Your task to perform on an android device: refresh tabs in the chrome app Image 0: 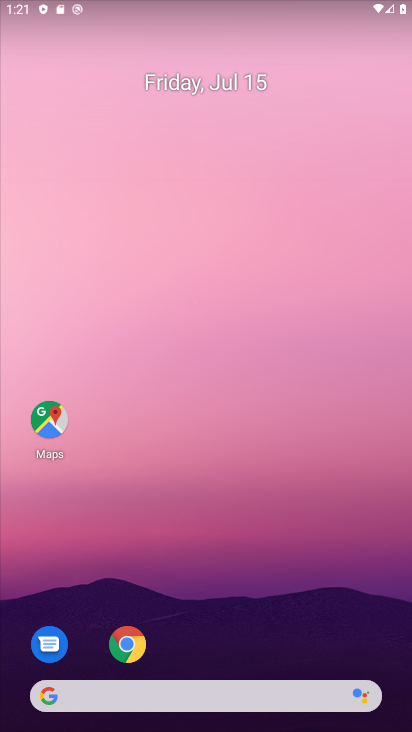
Step 0: click (297, 105)
Your task to perform on an android device: refresh tabs in the chrome app Image 1: 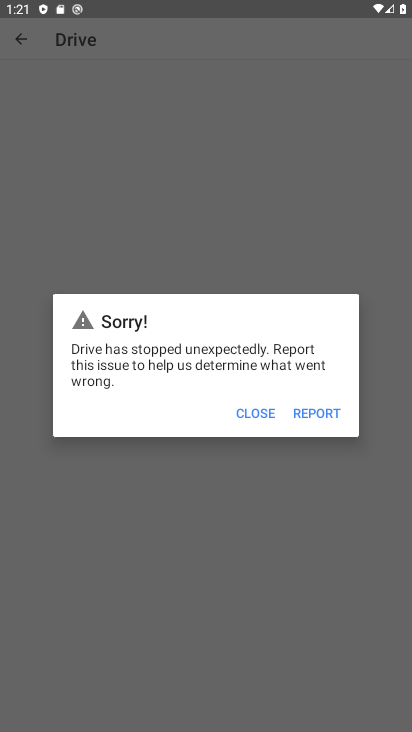
Step 1: press home button
Your task to perform on an android device: refresh tabs in the chrome app Image 2: 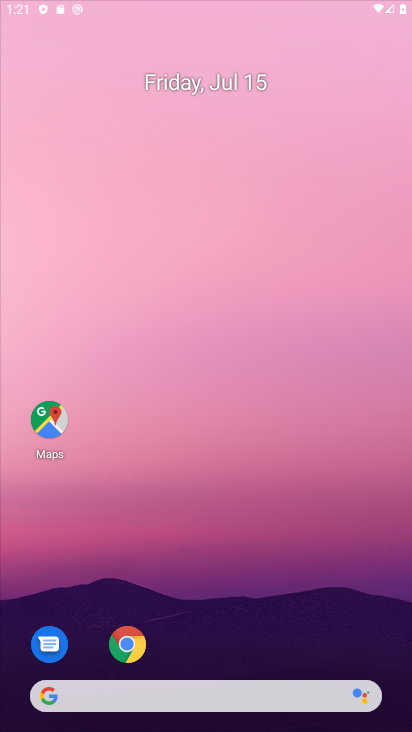
Step 2: drag from (379, 657) to (334, 75)
Your task to perform on an android device: refresh tabs in the chrome app Image 3: 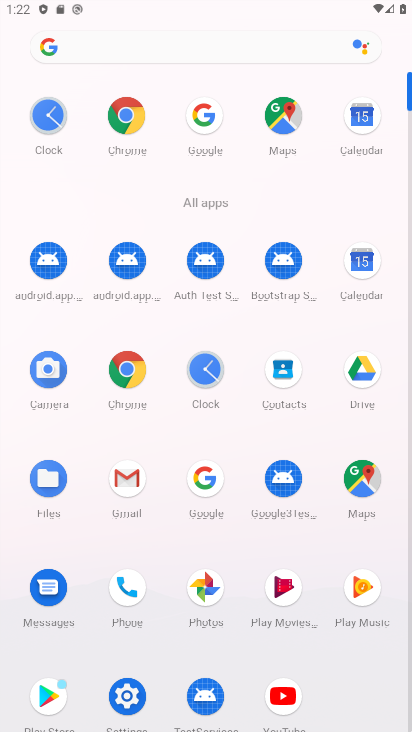
Step 3: click (125, 134)
Your task to perform on an android device: refresh tabs in the chrome app Image 4: 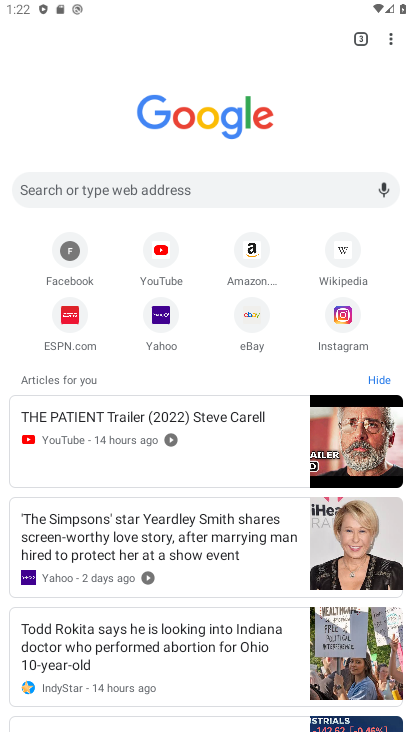
Step 4: click (389, 36)
Your task to perform on an android device: refresh tabs in the chrome app Image 5: 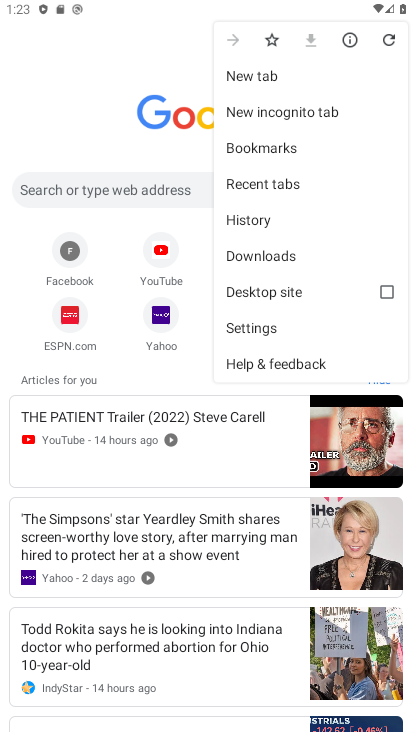
Step 5: click (388, 40)
Your task to perform on an android device: refresh tabs in the chrome app Image 6: 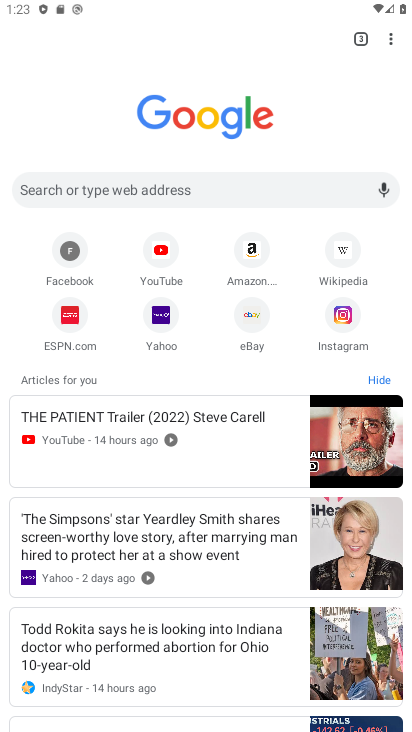
Step 6: task complete